Your task to perform on an android device: Show me popular games on the Play Store Image 0: 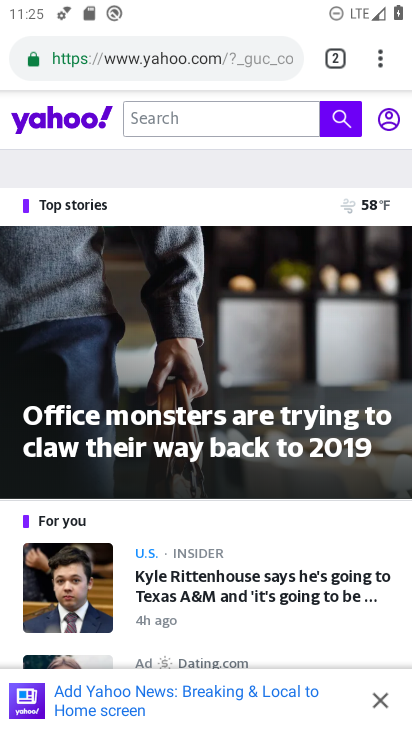
Step 0: press home button
Your task to perform on an android device: Show me popular games on the Play Store Image 1: 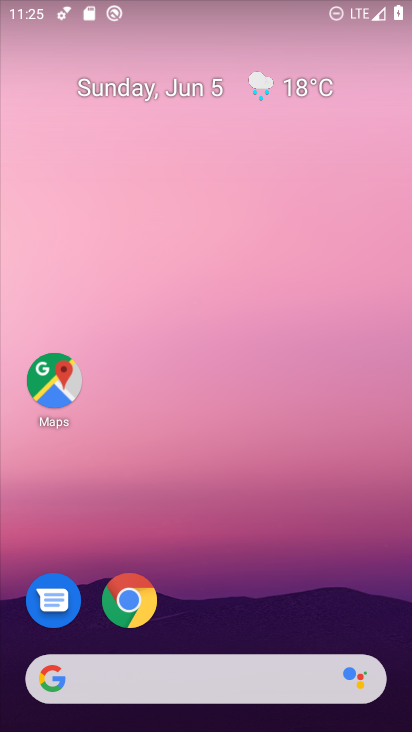
Step 1: drag from (211, 634) to (219, 224)
Your task to perform on an android device: Show me popular games on the Play Store Image 2: 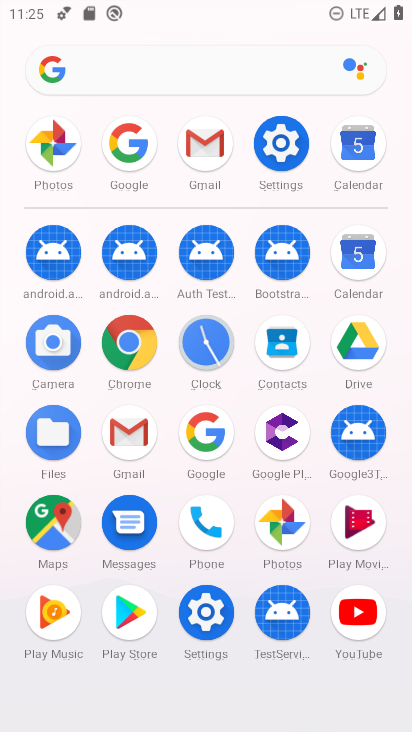
Step 2: click (127, 599)
Your task to perform on an android device: Show me popular games on the Play Store Image 3: 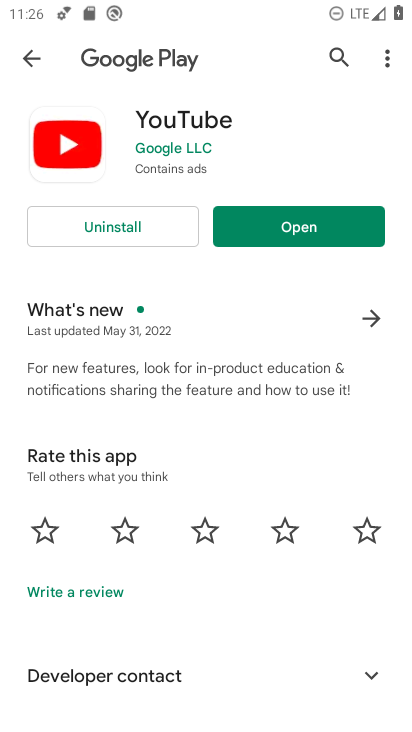
Step 3: click (31, 53)
Your task to perform on an android device: Show me popular games on the Play Store Image 4: 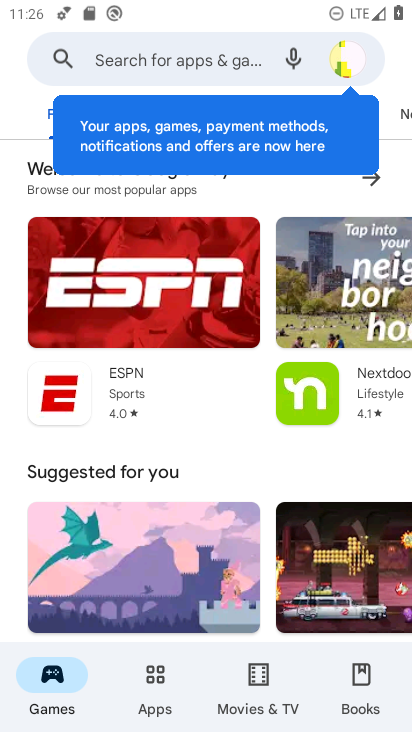
Step 4: click (263, 126)
Your task to perform on an android device: Show me popular games on the Play Store Image 5: 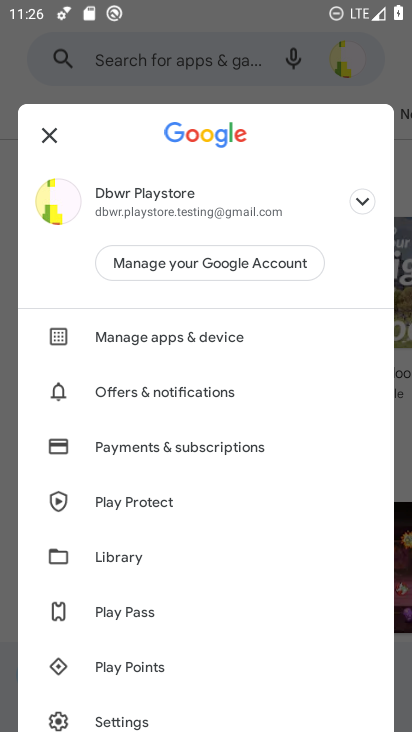
Step 5: click (163, 111)
Your task to perform on an android device: Show me popular games on the Play Store Image 6: 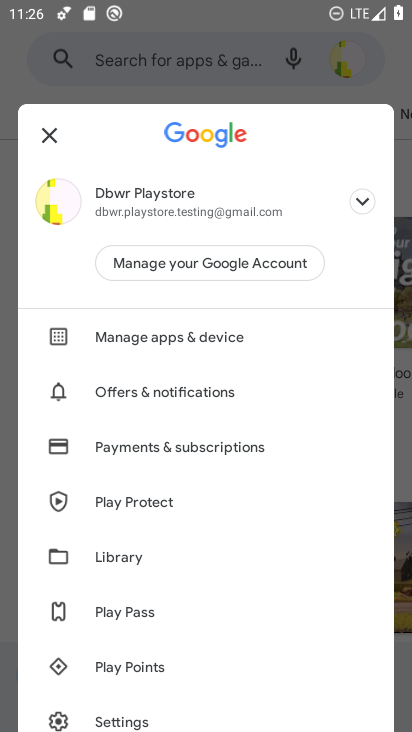
Step 6: click (50, 135)
Your task to perform on an android device: Show me popular games on the Play Store Image 7: 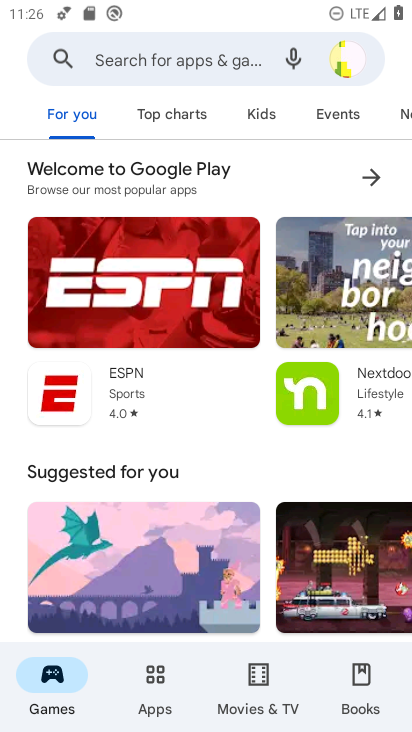
Step 7: click (152, 115)
Your task to perform on an android device: Show me popular games on the Play Store Image 8: 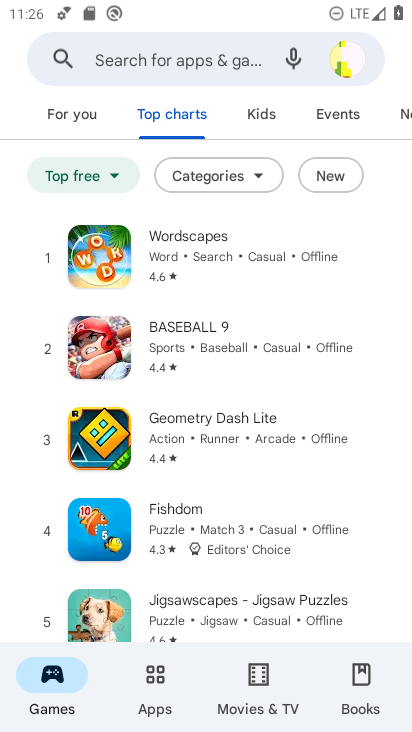
Step 8: task complete